Your task to perform on an android device: Show me popular games on the Play Store Image 0: 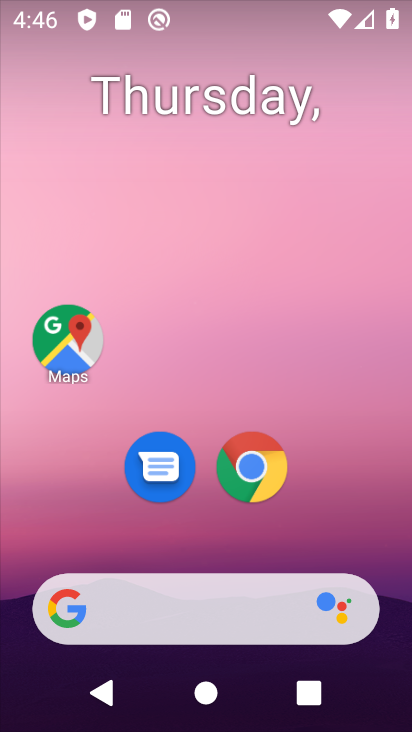
Step 0: drag from (358, 535) to (275, 29)
Your task to perform on an android device: Show me popular games on the Play Store Image 1: 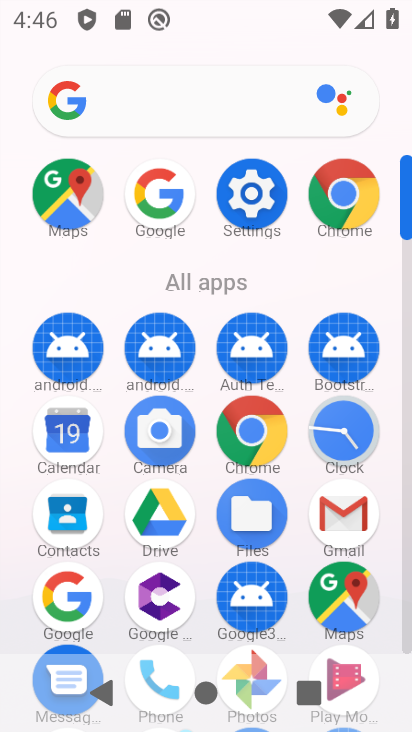
Step 1: click (404, 644)
Your task to perform on an android device: Show me popular games on the Play Store Image 2: 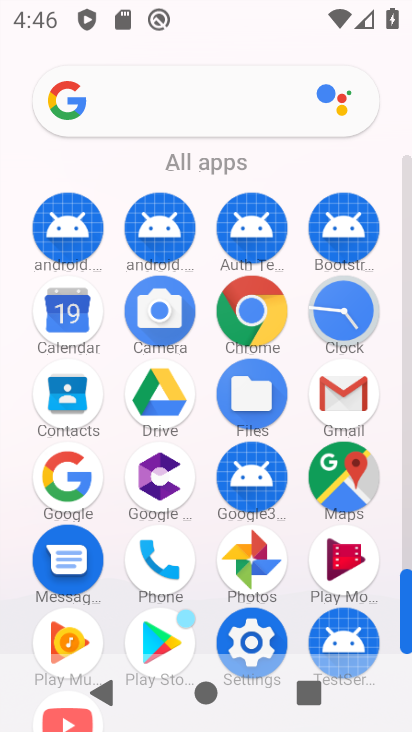
Step 2: click (174, 627)
Your task to perform on an android device: Show me popular games on the Play Store Image 3: 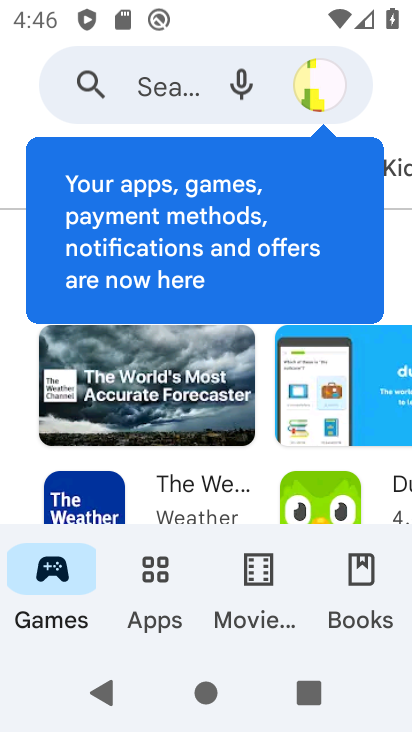
Step 3: drag from (272, 475) to (269, 439)
Your task to perform on an android device: Show me popular games on the Play Store Image 4: 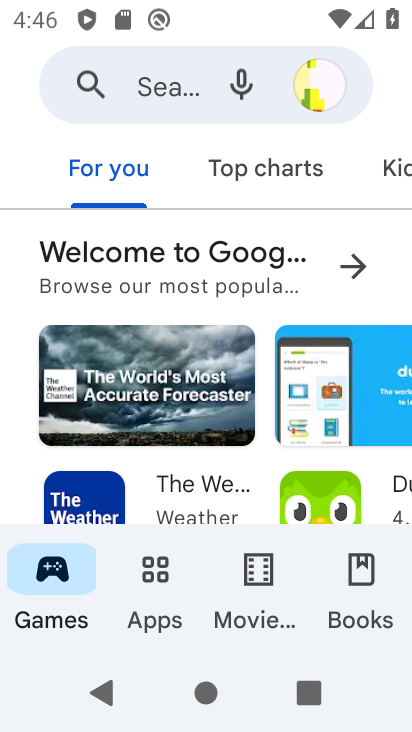
Step 4: click (267, 264)
Your task to perform on an android device: Show me popular games on the Play Store Image 5: 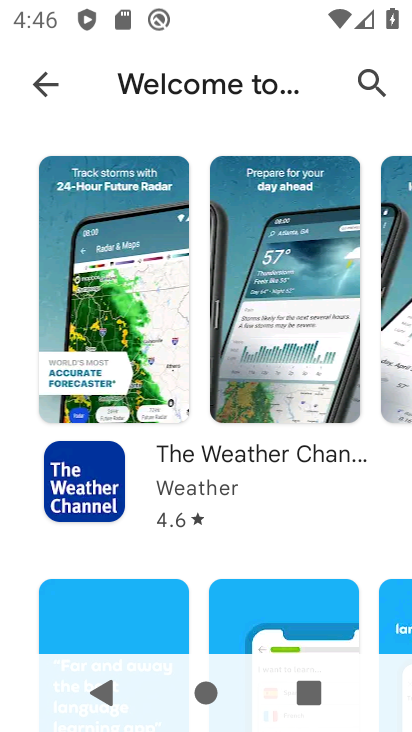
Step 5: task complete